Your task to perform on an android device: toggle sleep mode Image 0: 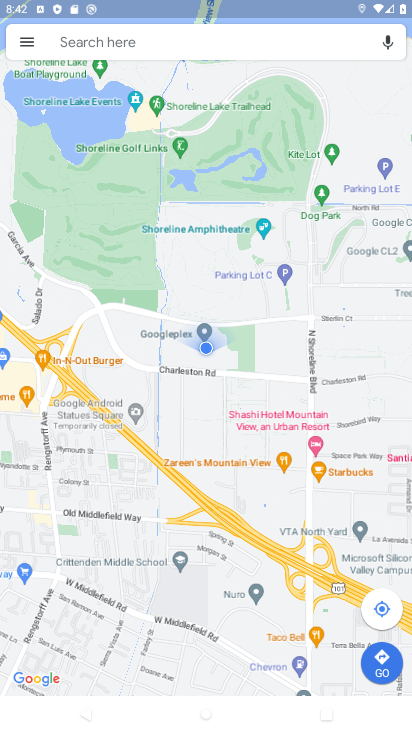
Step 0: press home button
Your task to perform on an android device: toggle sleep mode Image 1: 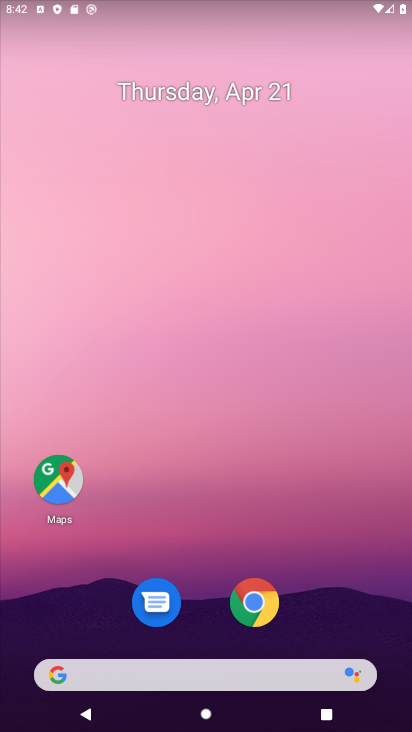
Step 1: drag from (315, 602) to (343, 184)
Your task to perform on an android device: toggle sleep mode Image 2: 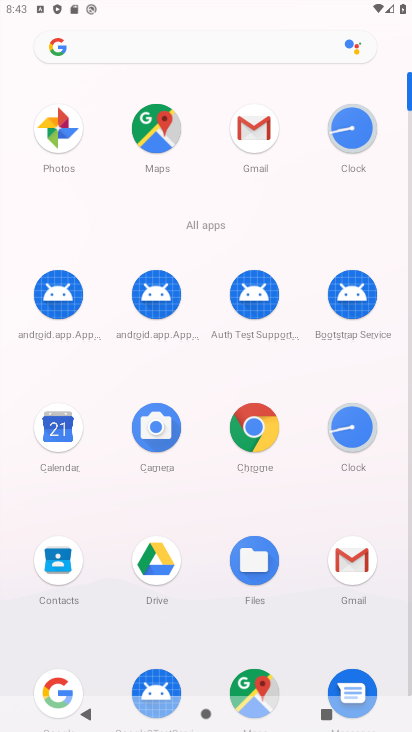
Step 2: drag from (192, 523) to (195, 152)
Your task to perform on an android device: toggle sleep mode Image 3: 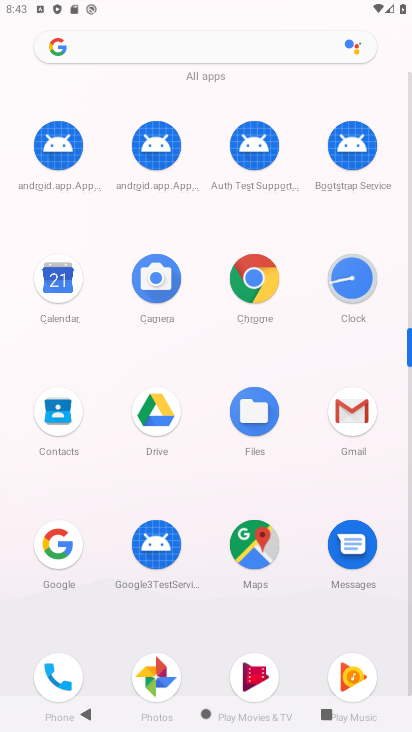
Step 3: drag from (203, 670) to (192, 360)
Your task to perform on an android device: toggle sleep mode Image 4: 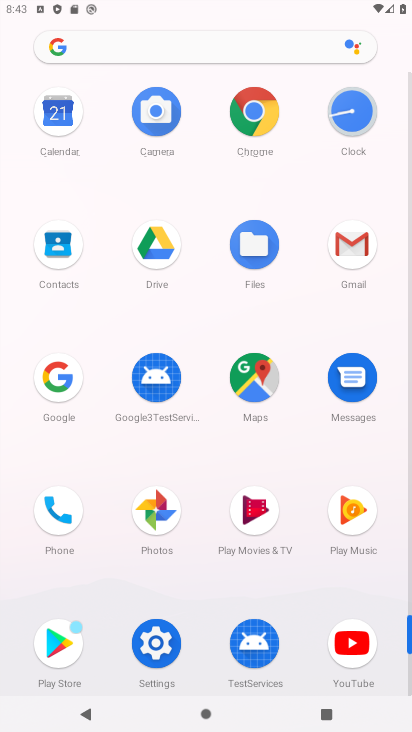
Step 4: click (152, 649)
Your task to perform on an android device: toggle sleep mode Image 5: 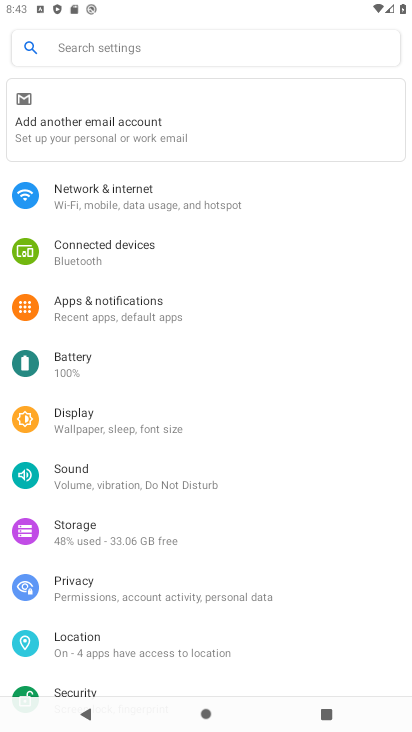
Step 5: task complete